Your task to perform on an android device: read, delete, or share a saved page in the chrome app Image 0: 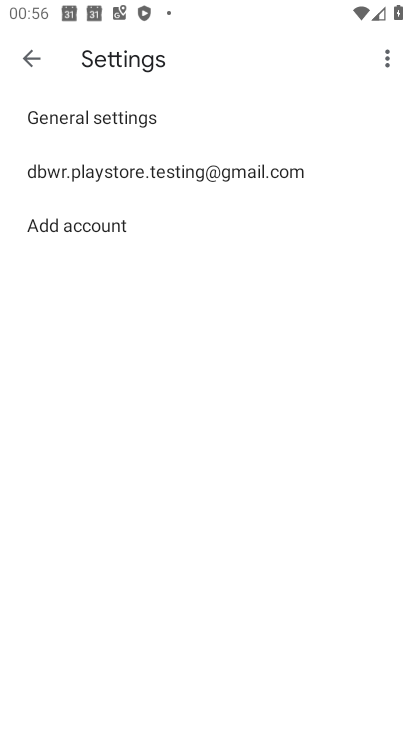
Step 0: press home button
Your task to perform on an android device: read, delete, or share a saved page in the chrome app Image 1: 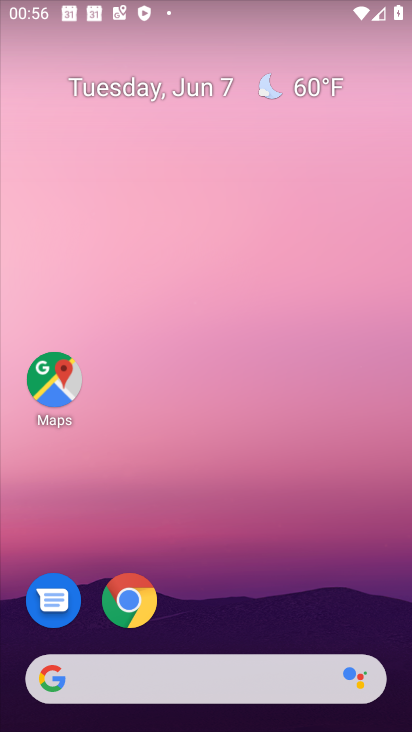
Step 1: click (134, 606)
Your task to perform on an android device: read, delete, or share a saved page in the chrome app Image 2: 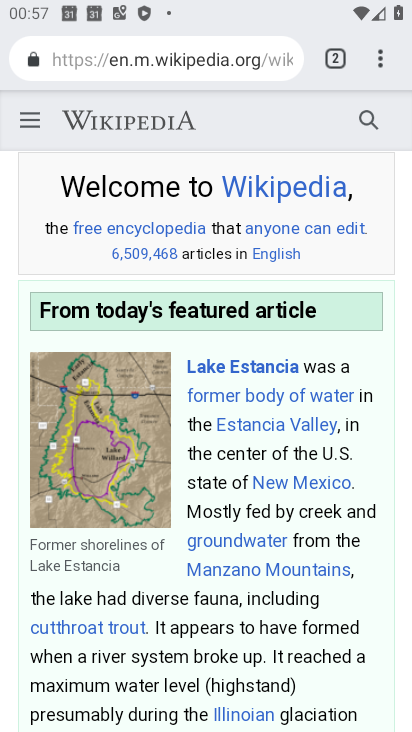
Step 2: click (378, 61)
Your task to perform on an android device: read, delete, or share a saved page in the chrome app Image 3: 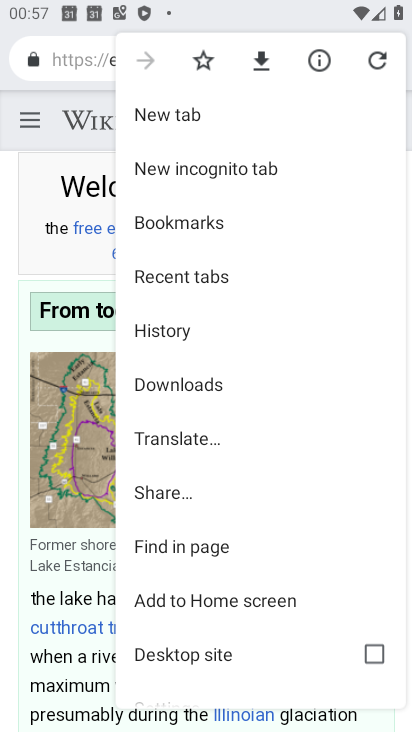
Step 3: click (186, 383)
Your task to perform on an android device: read, delete, or share a saved page in the chrome app Image 4: 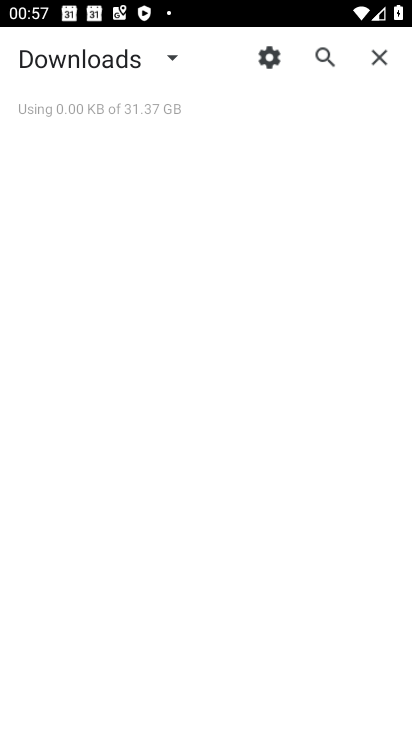
Step 4: click (168, 53)
Your task to perform on an android device: read, delete, or share a saved page in the chrome app Image 5: 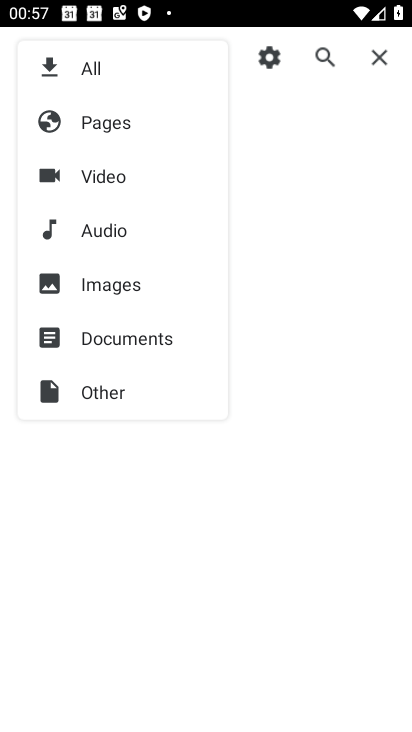
Step 5: click (121, 117)
Your task to perform on an android device: read, delete, or share a saved page in the chrome app Image 6: 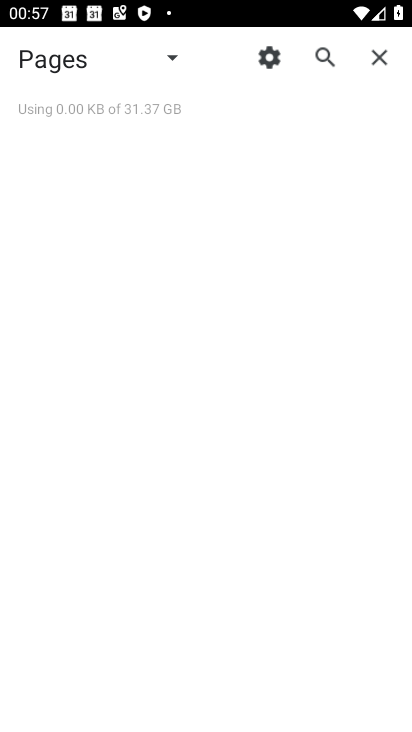
Step 6: task complete